Your task to perform on an android device: Open Google Image 0: 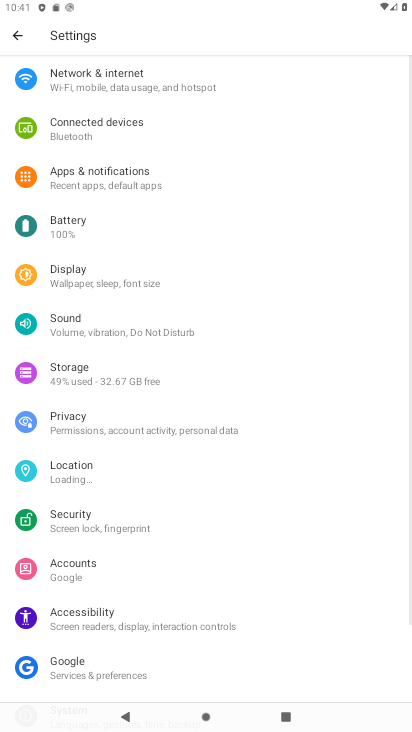
Step 0: press home button
Your task to perform on an android device: Open Google Image 1: 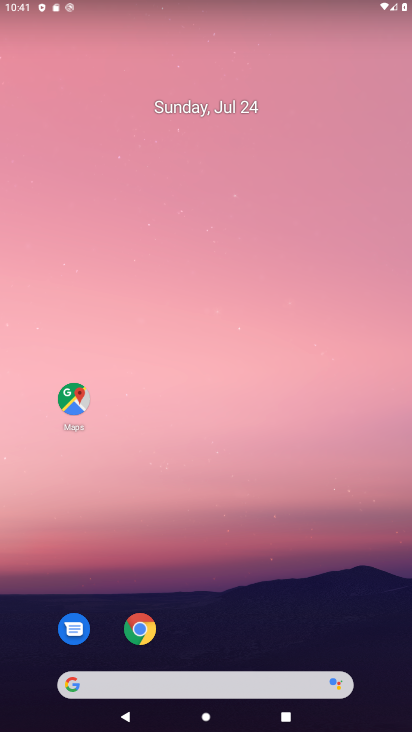
Step 1: drag from (279, 610) to (219, 117)
Your task to perform on an android device: Open Google Image 2: 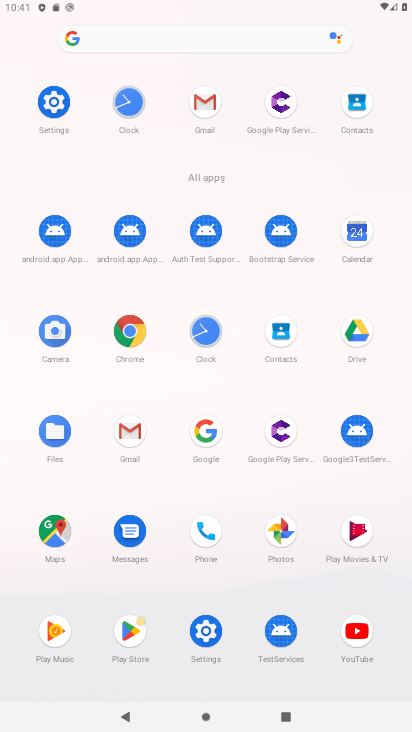
Step 2: click (202, 427)
Your task to perform on an android device: Open Google Image 3: 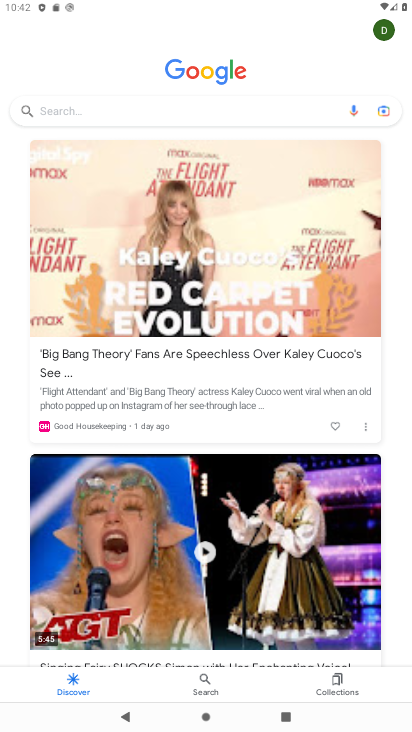
Step 3: task complete